Your task to perform on an android device: turn on sleep mode Image 0: 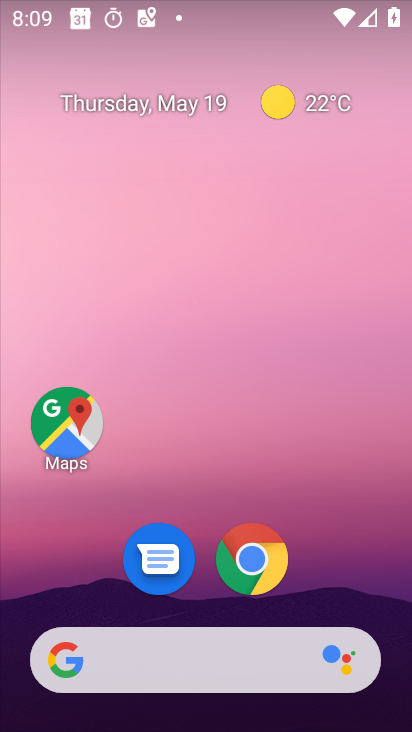
Step 0: drag from (317, 572) to (347, 54)
Your task to perform on an android device: turn on sleep mode Image 1: 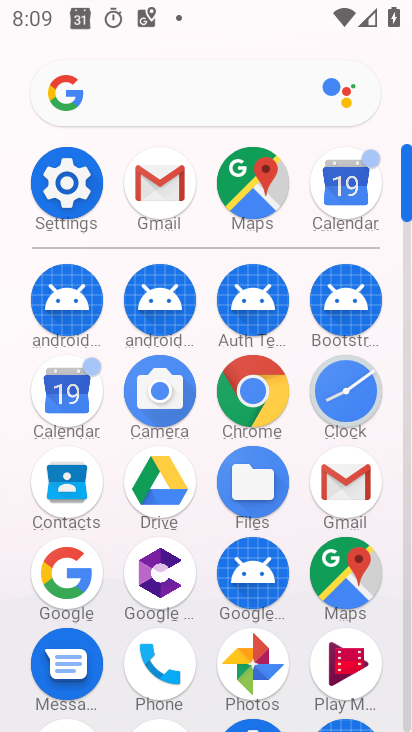
Step 1: click (58, 182)
Your task to perform on an android device: turn on sleep mode Image 2: 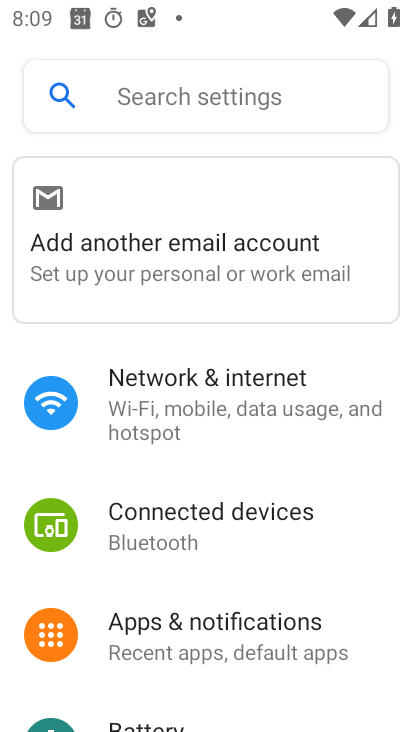
Step 2: drag from (254, 626) to (261, 291)
Your task to perform on an android device: turn on sleep mode Image 3: 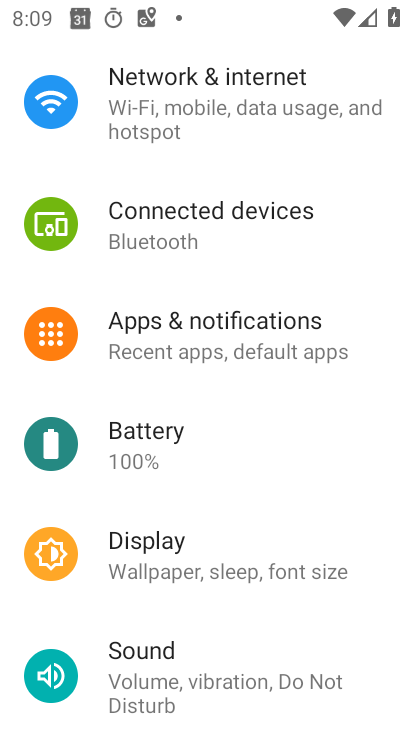
Step 3: drag from (216, 656) to (249, 324)
Your task to perform on an android device: turn on sleep mode Image 4: 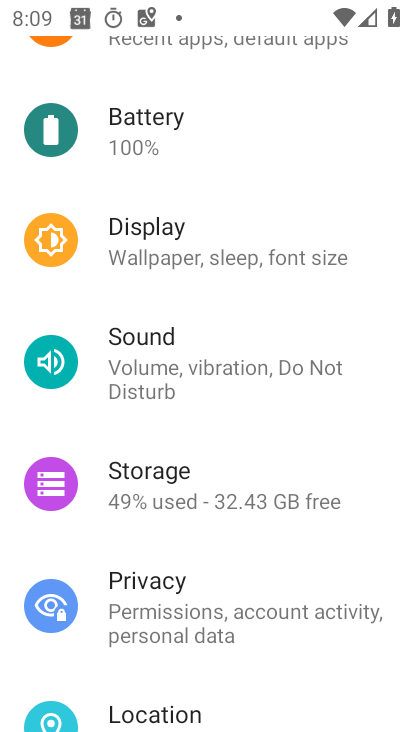
Step 4: click (281, 253)
Your task to perform on an android device: turn on sleep mode Image 5: 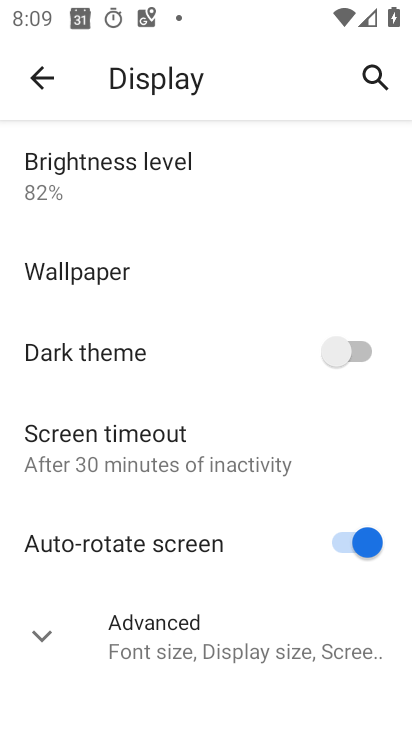
Step 5: click (188, 625)
Your task to perform on an android device: turn on sleep mode Image 6: 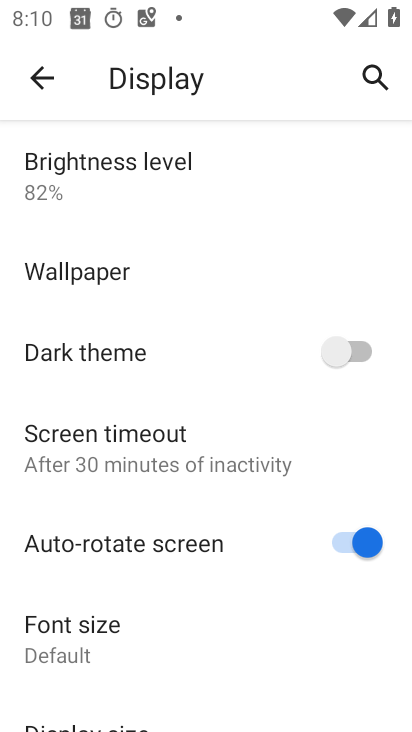
Step 6: drag from (204, 573) to (191, 228)
Your task to perform on an android device: turn on sleep mode Image 7: 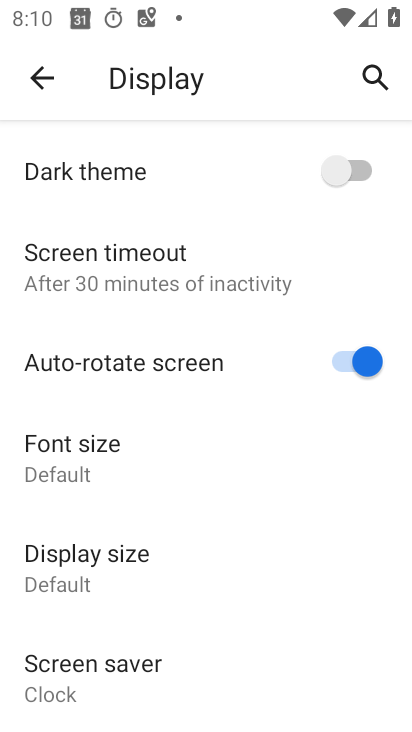
Step 7: drag from (113, 579) to (91, 273)
Your task to perform on an android device: turn on sleep mode Image 8: 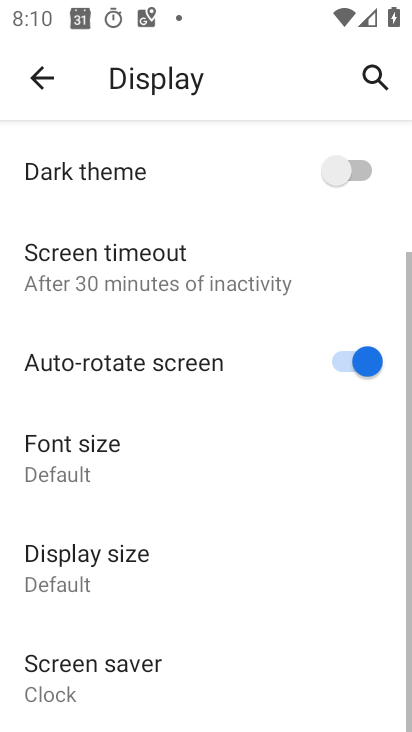
Step 8: drag from (152, 562) to (123, 167)
Your task to perform on an android device: turn on sleep mode Image 9: 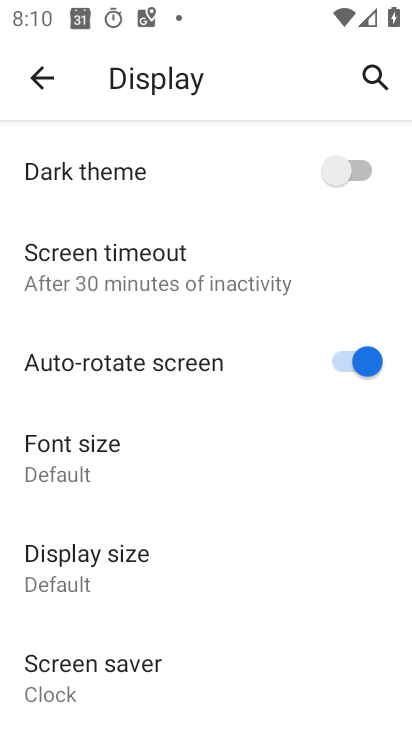
Step 9: click (59, 86)
Your task to perform on an android device: turn on sleep mode Image 10: 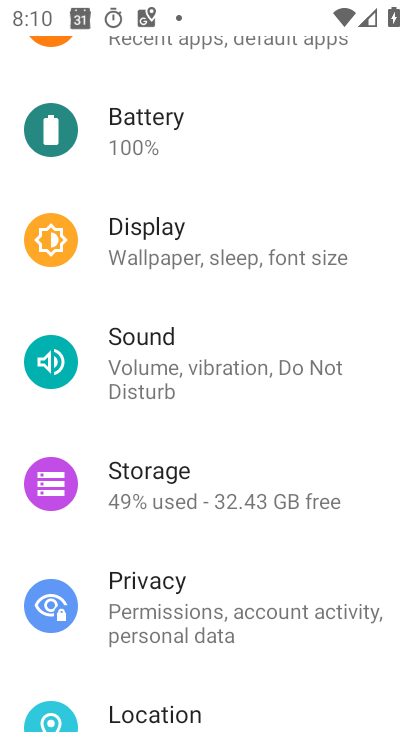
Step 10: task complete